Your task to perform on an android device: Open my contact list Image 0: 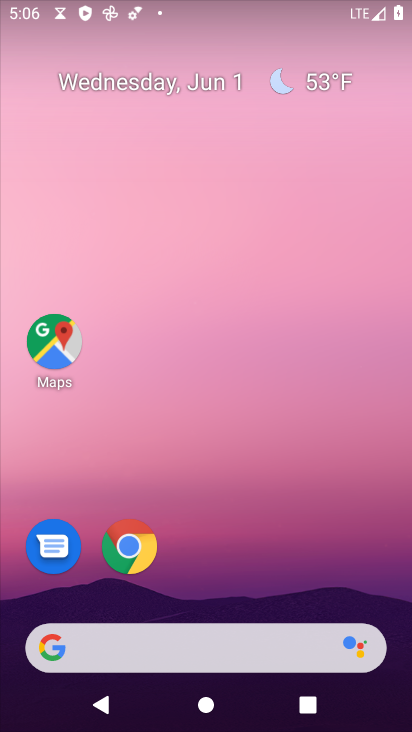
Step 0: drag from (272, 537) to (208, 49)
Your task to perform on an android device: Open my contact list Image 1: 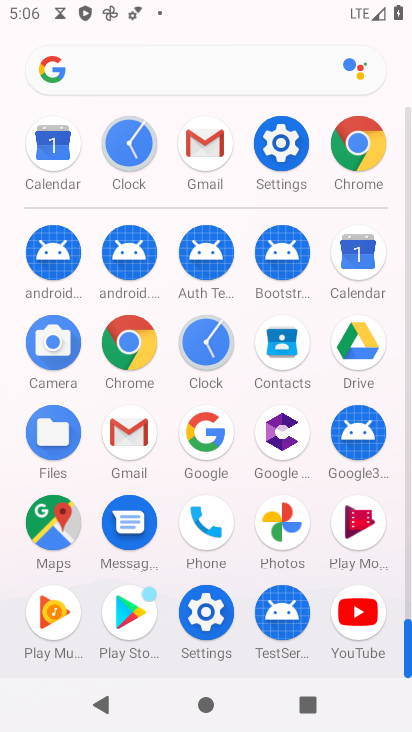
Step 1: drag from (6, 548) to (19, 205)
Your task to perform on an android device: Open my contact list Image 2: 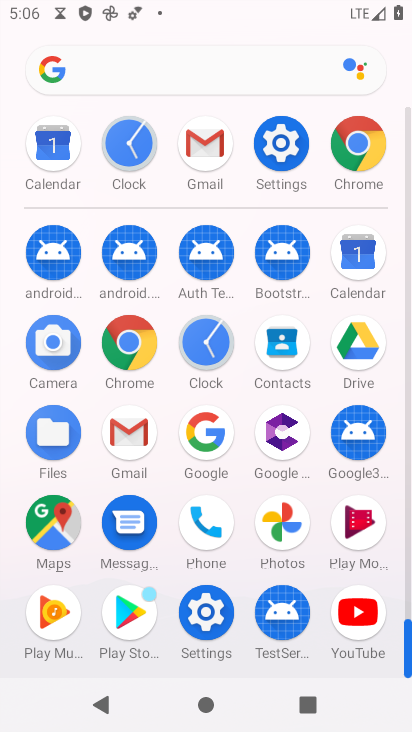
Step 2: click (283, 339)
Your task to perform on an android device: Open my contact list Image 3: 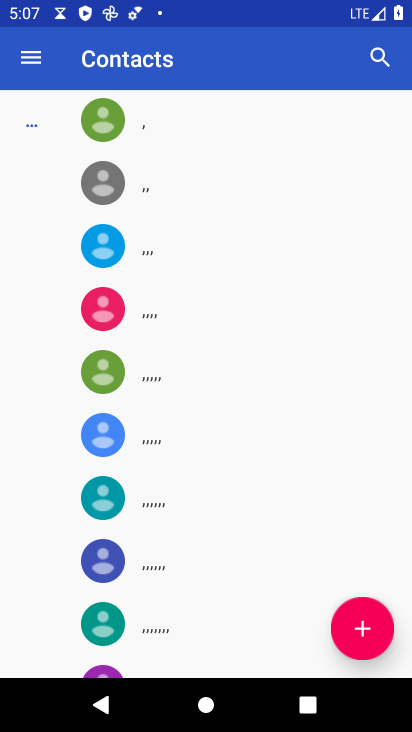
Step 3: drag from (217, 554) to (229, 210)
Your task to perform on an android device: Open my contact list Image 4: 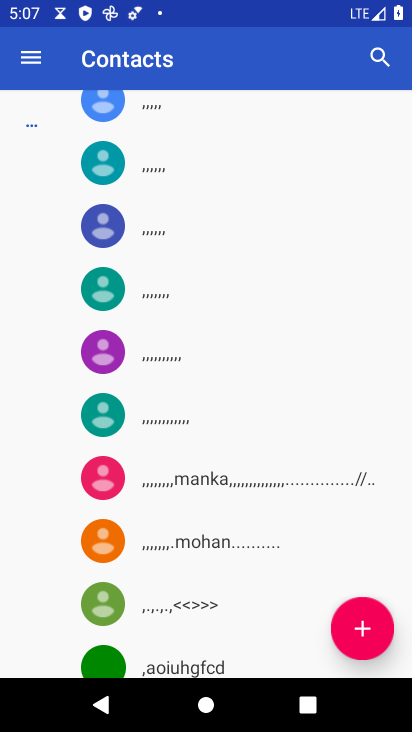
Step 4: click (359, 628)
Your task to perform on an android device: Open my contact list Image 5: 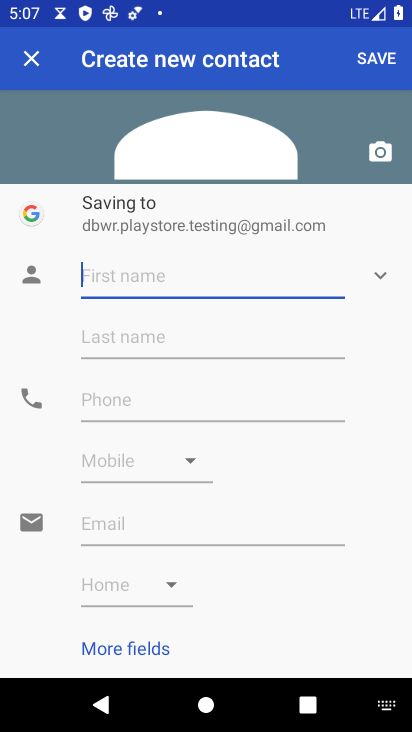
Step 5: type "Fghjkl"
Your task to perform on an android device: Open my contact list Image 6: 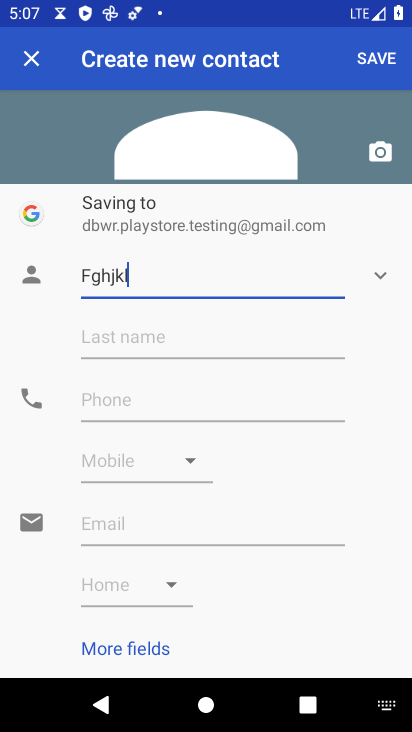
Step 6: type ""
Your task to perform on an android device: Open my contact list Image 7: 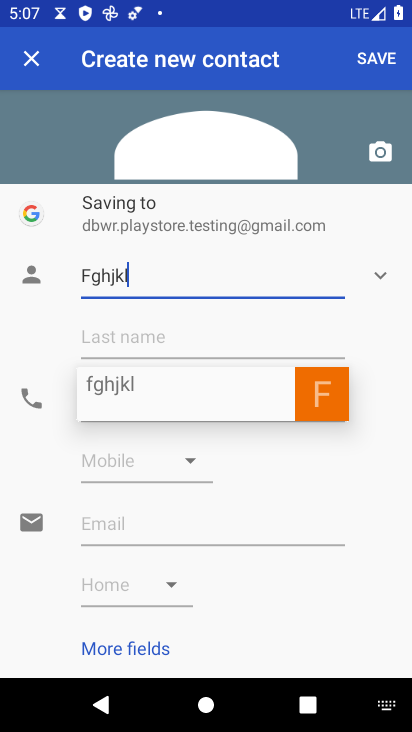
Step 7: click (191, 403)
Your task to perform on an android device: Open my contact list Image 8: 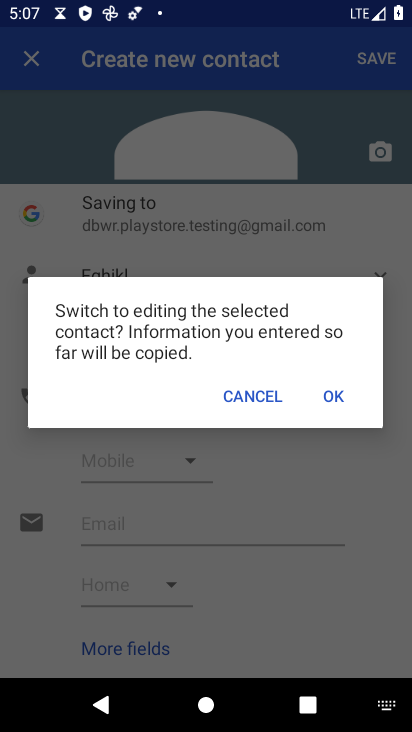
Step 8: click (328, 394)
Your task to perform on an android device: Open my contact list Image 9: 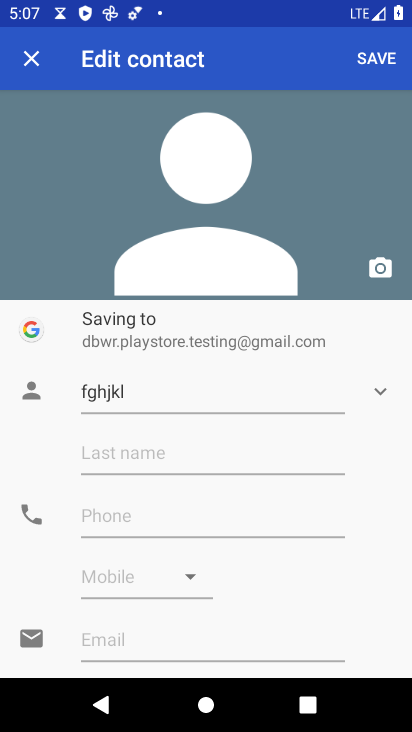
Step 9: click (141, 515)
Your task to perform on an android device: Open my contact list Image 10: 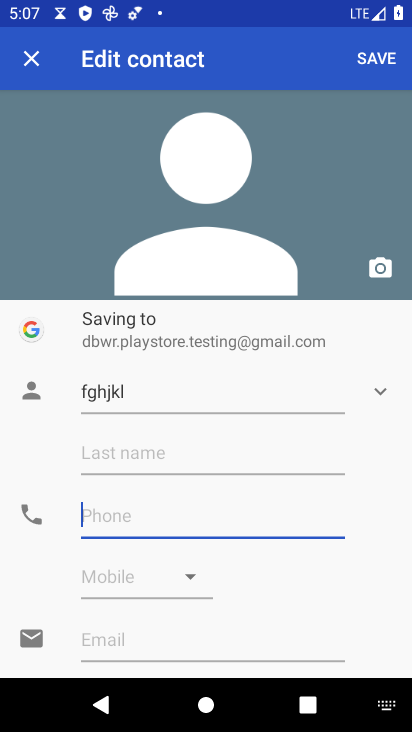
Step 10: type "3456789"
Your task to perform on an android device: Open my contact list Image 11: 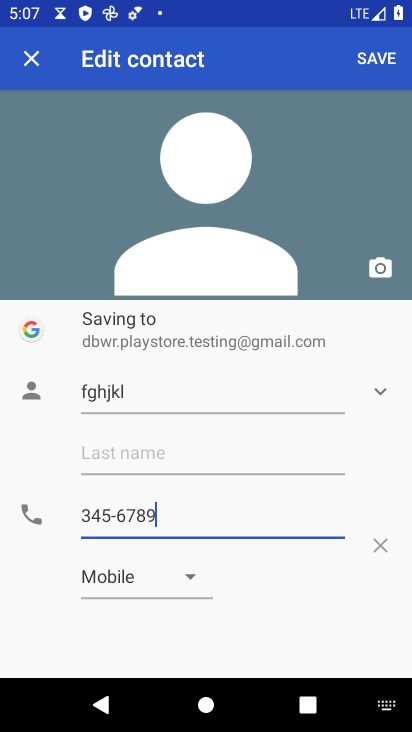
Step 11: type ""
Your task to perform on an android device: Open my contact list Image 12: 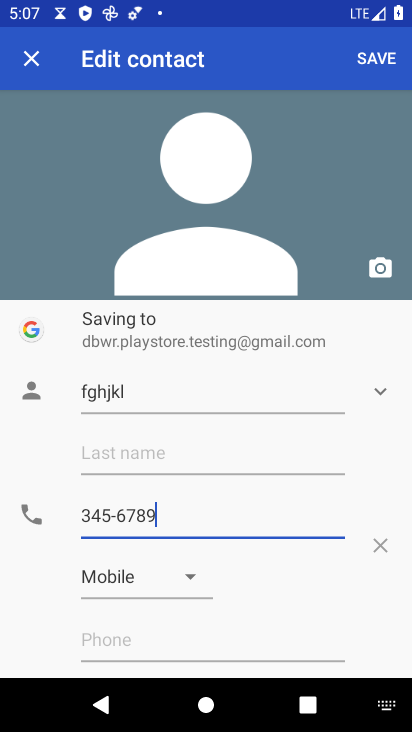
Step 12: click (362, 53)
Your task to perform on an android device: Open my contact list Image 13: 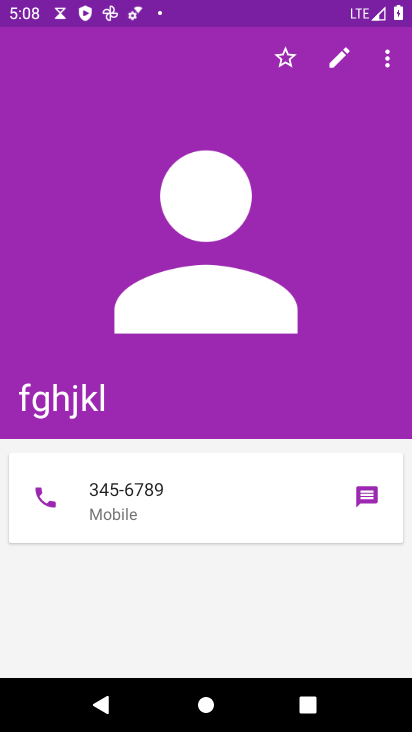
Step 13: task complete